Your task to perform on an android device: Search for pizza restaurants on Maps Image 0: 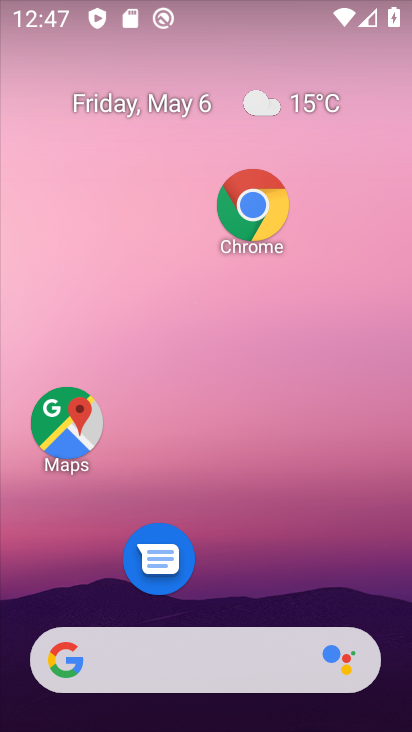
Step 0: click (54, 411)
Your task to perform on an android device: Search for pizza restaurants on Maps Image 1: 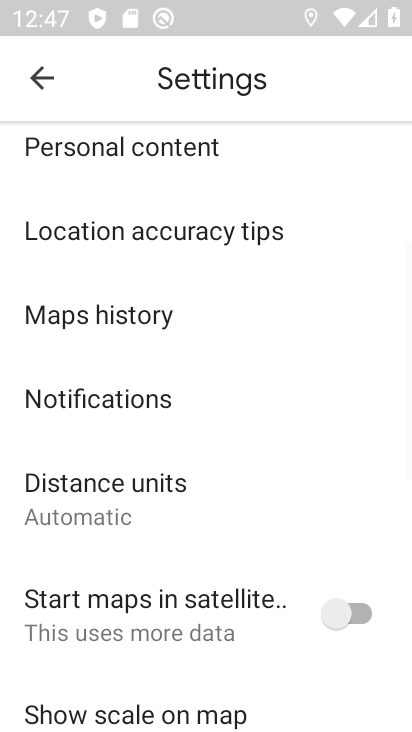
Step 1: press back button
Your task to perform on an android device: Search for pizza restaurants on Maps Image 2: 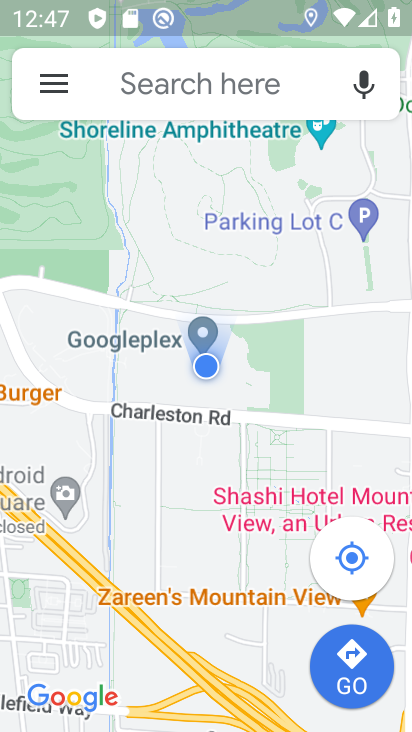
Step 2: click (156, 75)
Your task to perform on an android device: Search for pizza restaurants on Maps Image 3: 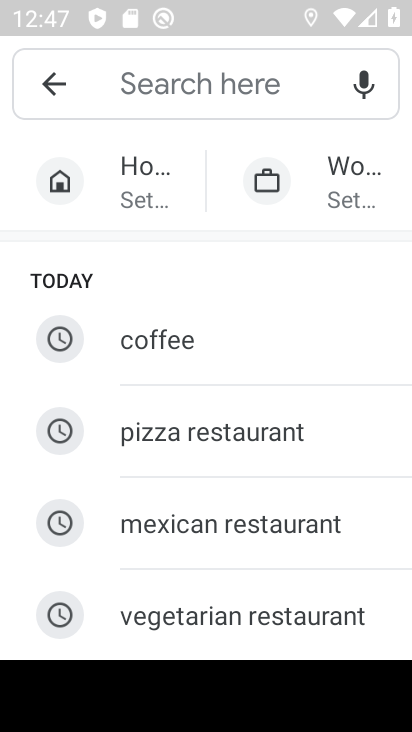
Step 3: click (67, 436)
Your task to perform on an android device: Search for pizza restaurants on Maps Image 4: 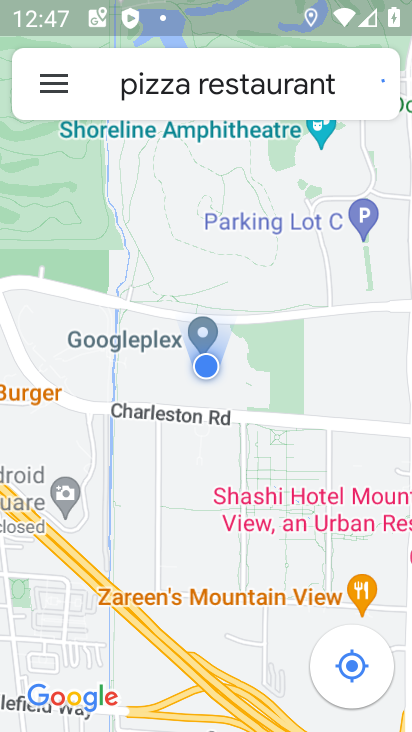
Step 4: task complete